Your task to perform on an android device: refresh tabs in the chrome app Image 0: 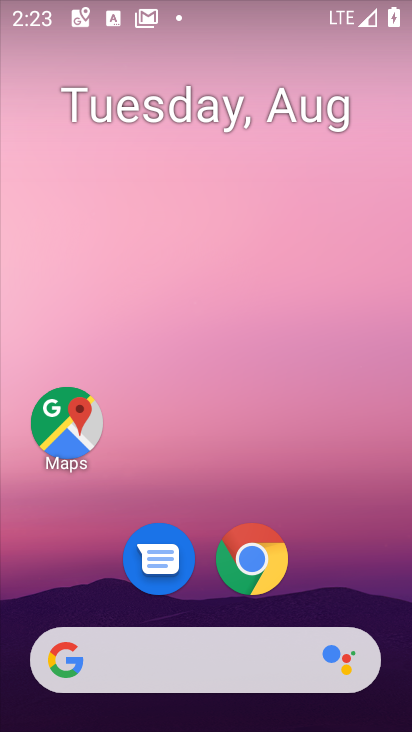
Step 0: click (263, 563)
Your task to perform on an android device: refresh tabs in the chrome app Image 1: 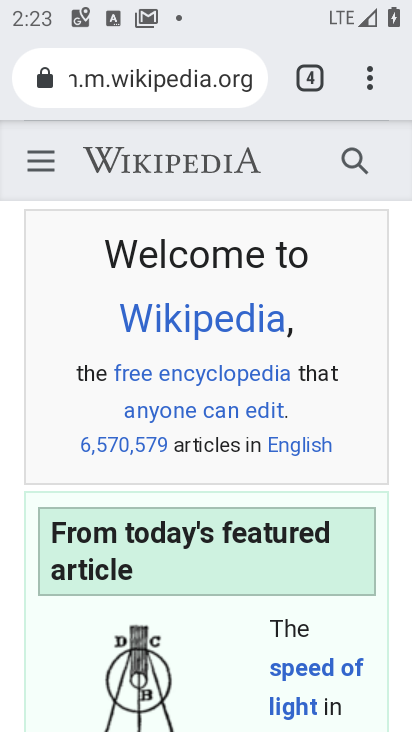
Step 1: click (369, 72)
Your task to perform on an android device: refresh tabs in the chrome app Image 2: 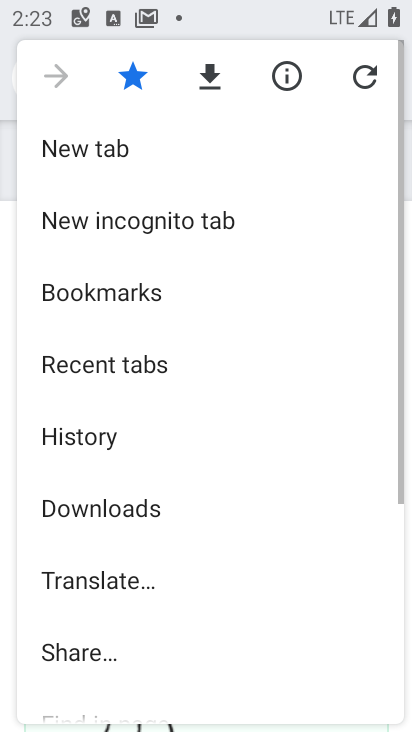
Step 2: click (369, 72)
Your task to perform on an android device: refresh tabs in the chrome app Image 3: 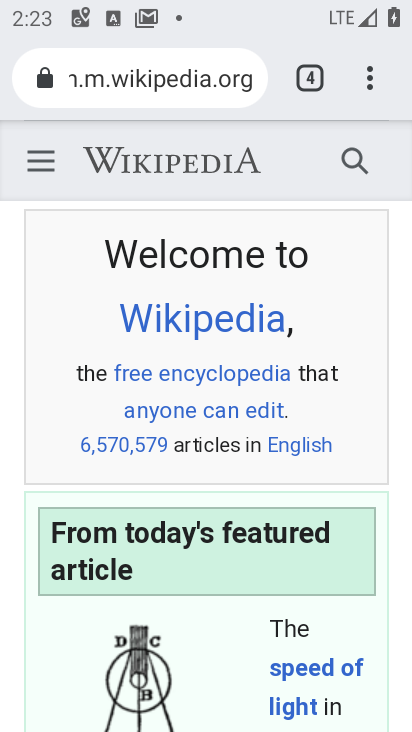
Step 3: task complete